Your task to perform on an android device: Add bose quietcomfort 35 to the cart on newegg.com, then select checkout. Image 0: 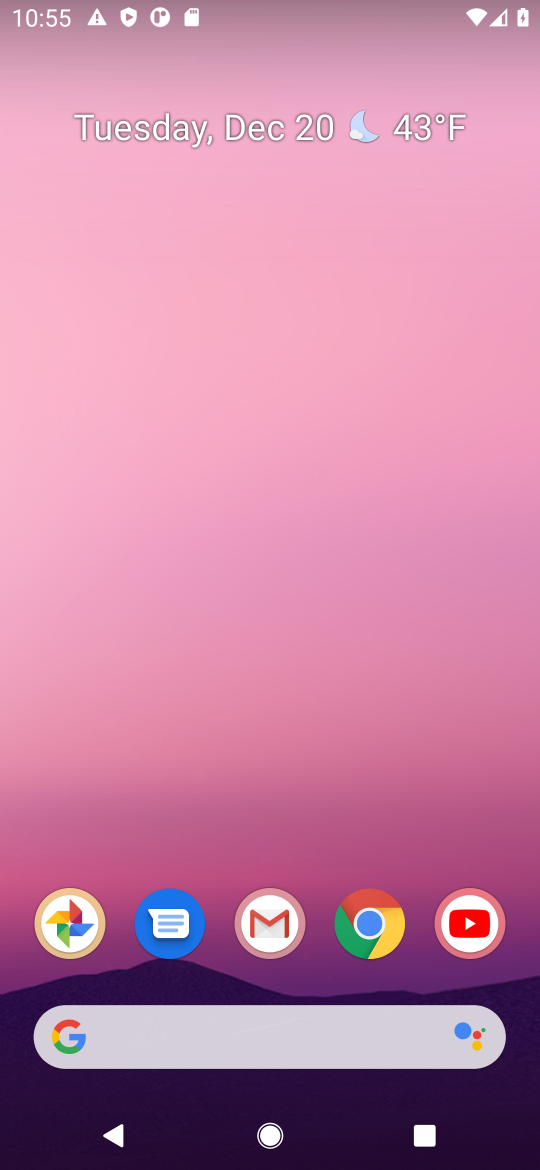
Step 0: click (369, 947)
Your task to perform on an android device: Add bose quietcomfort 35 to the cart on newegg.com, then select checkout. Image 1: 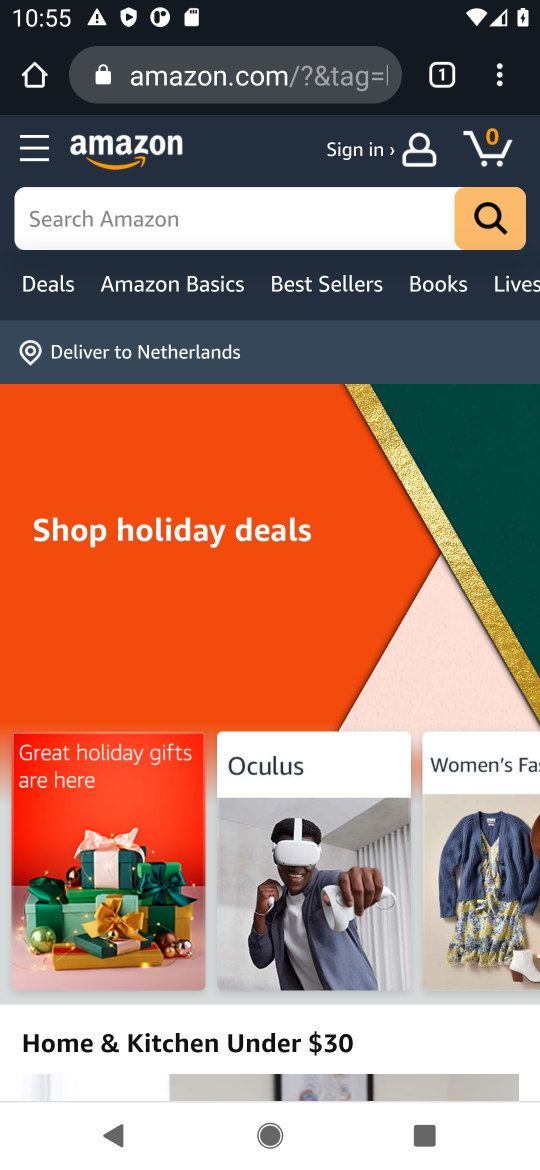
Step 1: click (255, 68)
Your task to perform on an android device: Add bose quietcomfort 35 to the cart on newegg.com, then select checkout. Image 2: 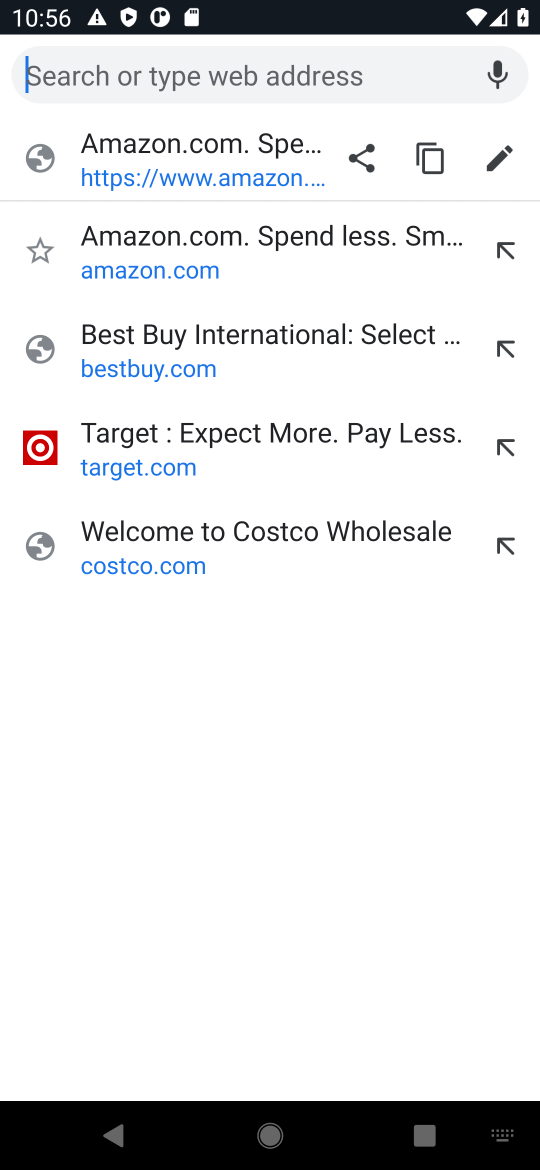
Step 2: type "newegg"
Your task to perform on an android device: Add bose quietcomfort 35 to the cart on newegg.com, then select checkout. Image 3: 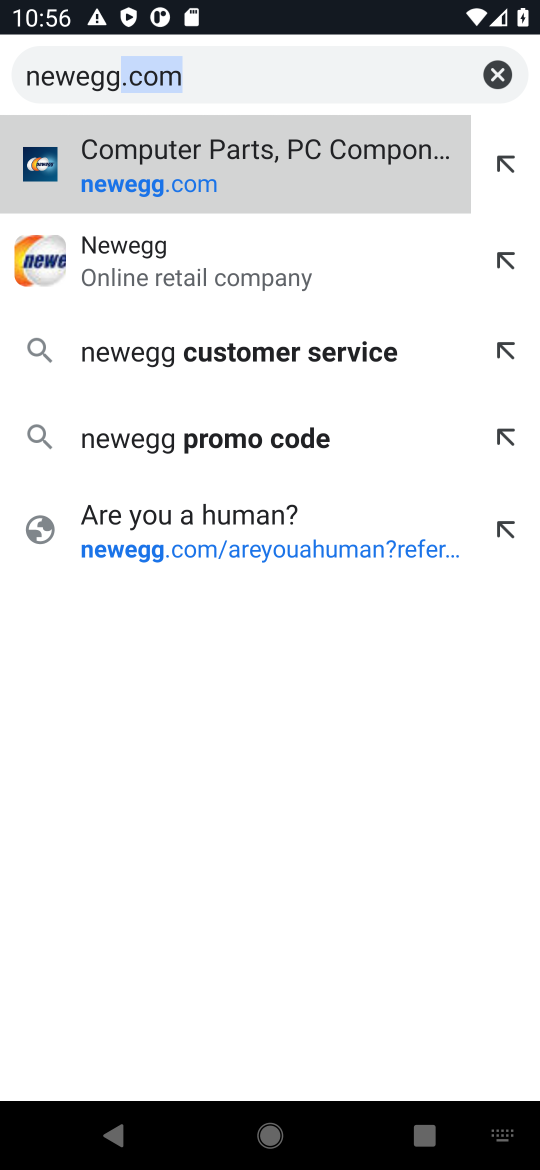
Step 3: click (213, 201)
Your task to perform on an android device: Add bose quietcomfort 35 to the cart on newegg.com, then select checkout. Image 4: 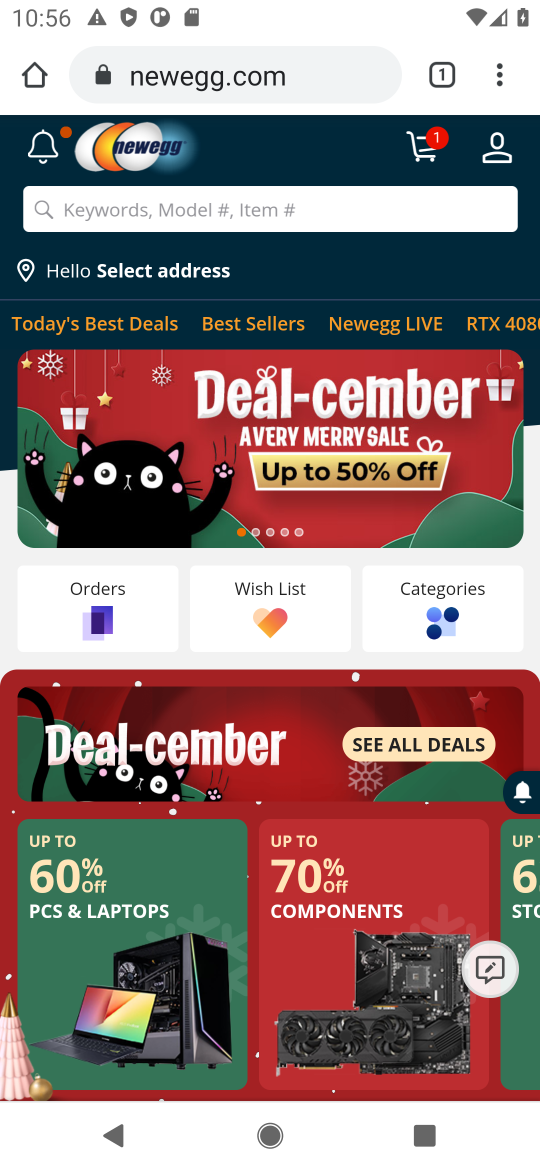
Step 4: click (227, 204)
Your task to perform on an android device: Add bose quietcomfort 35 to the cart on newegg.com, then select checkout. Image 5: 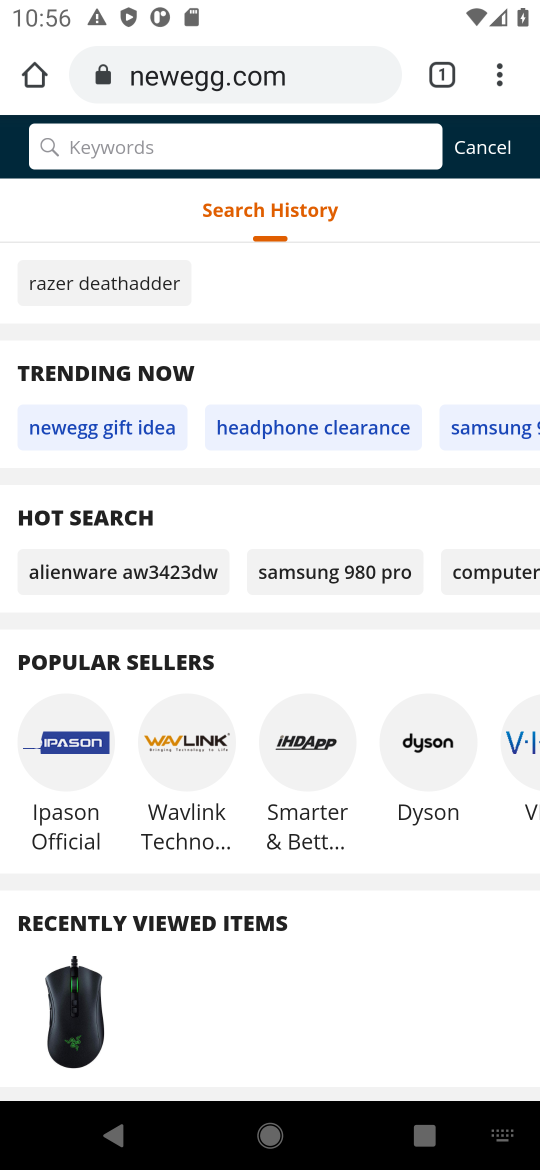
Step 5: type "bose quietcomfrot"
Your task to perform on an android device: Add bose quietcomfort 35 to the cart on newegg.com, then select checkout. Image 6: 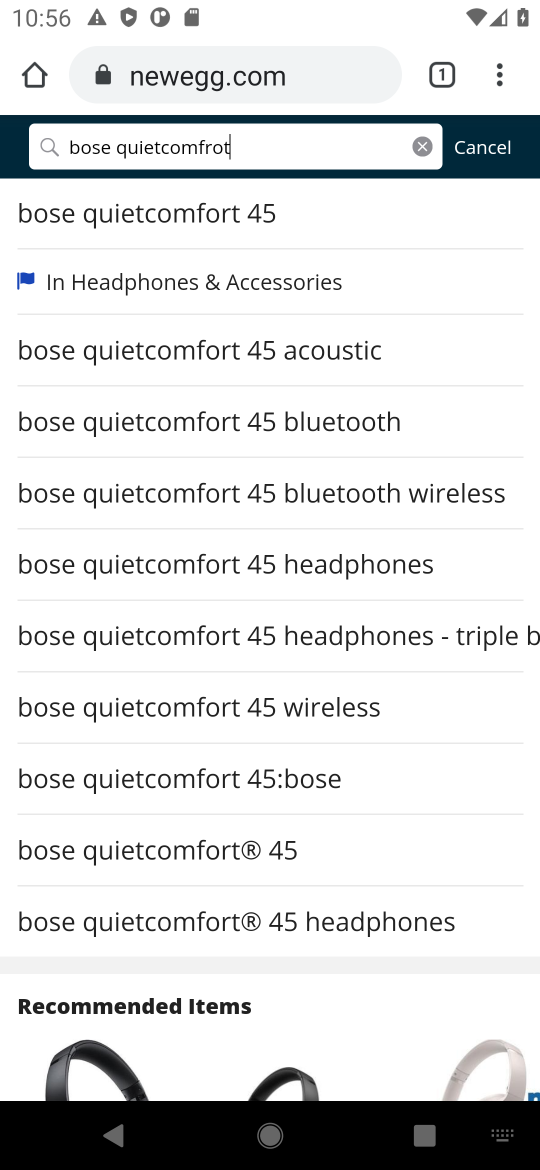
Step 6: type " 35"
Your task to perform on an android device: Add bose quietcomfort 35 to the cart on newegg.com, then select checkout. Image 7: 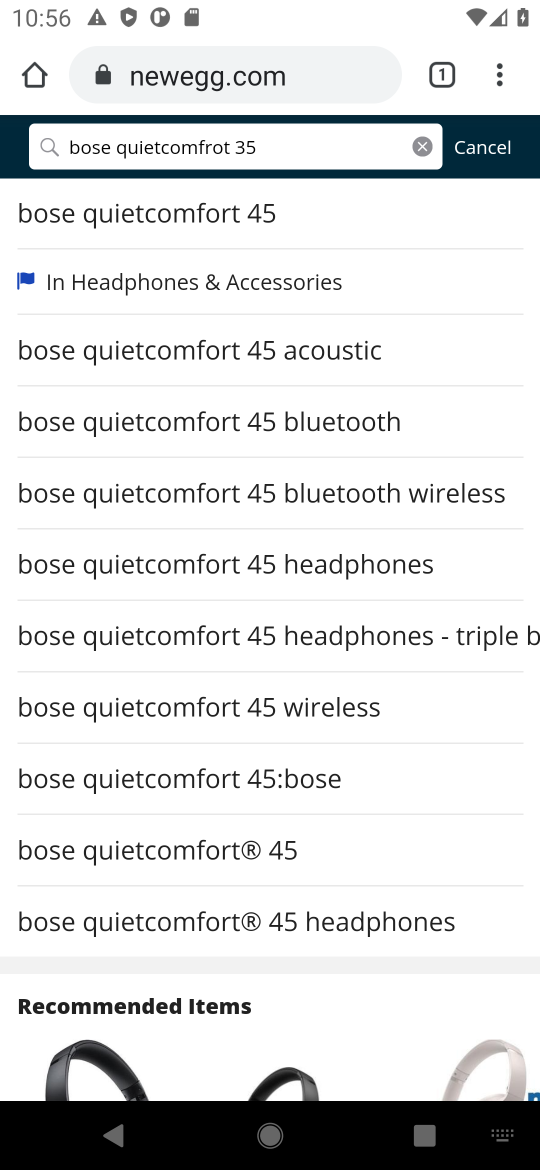
Step 7: click (307, 363)
Your task to perform on an android device: Add bose quietcomfort 35 to the cart on newegg.com, then select checkout. Image 8: 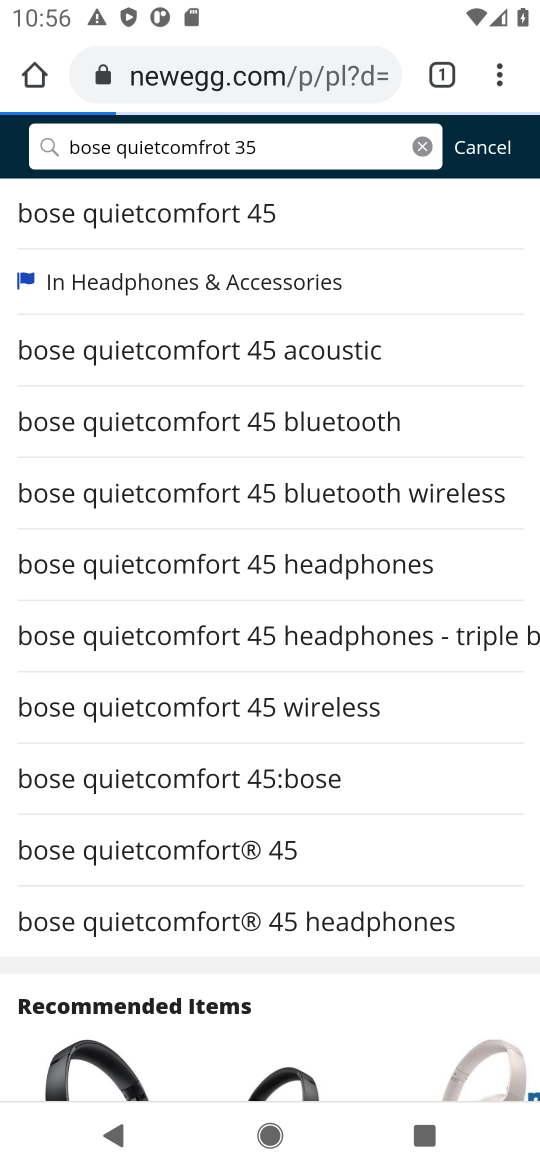
Step 8: task complete